Your task to perform on an android device: turn on data saver in the chrome app Image 0: 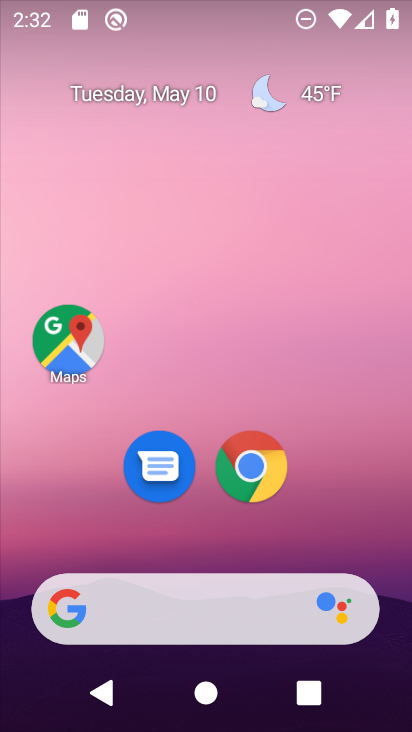
Step 0: click (248, 486)
Your task to perform on an android device: turn on data saver in the chrome app Image 1: 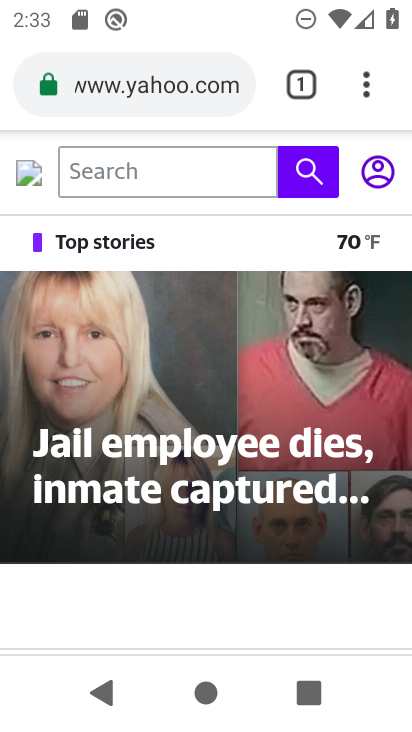
Step 1: click (372, 107)
Your task to perform on an android device: turn on data saver in the chrome app Image 2: 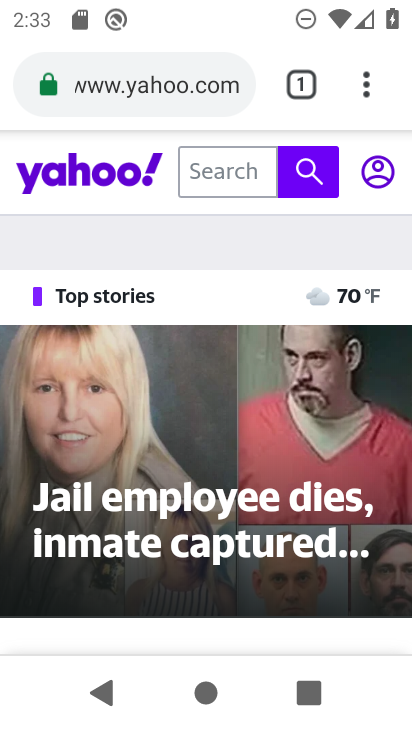
Step 2: click (396, 100)
Your task to perform on an android device: turn on data saver in the chrome app Image 3: 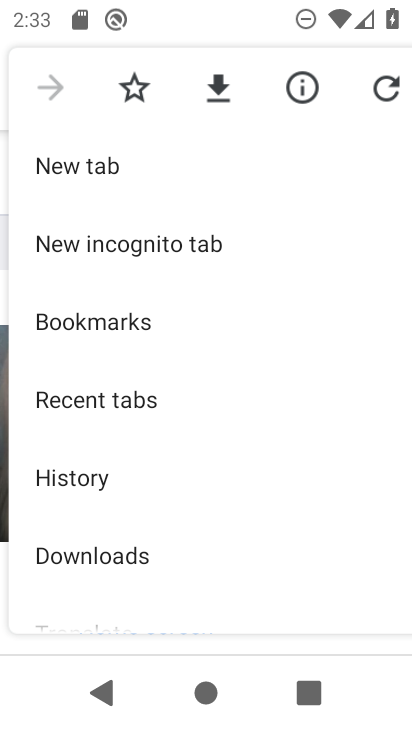
Step 3: drag from (198, 585) to (221, 315)
Your task to perform on an android device: turn on data saver in the chrome app Image 4: 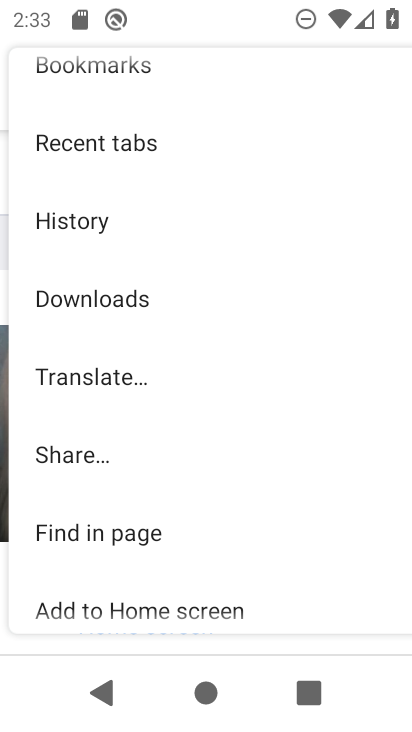
Step 4: drag from (197, 509) to (204, 217)
Your task to perform on an android device: turn on data saver in the chrome app Image 5: 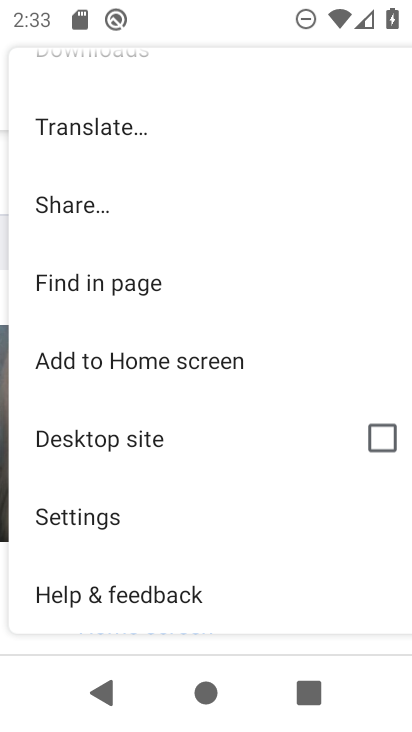
Step 5: click (165, 512)
Your task to perform on an android device: turn on data saver in the chrome app Image 6: 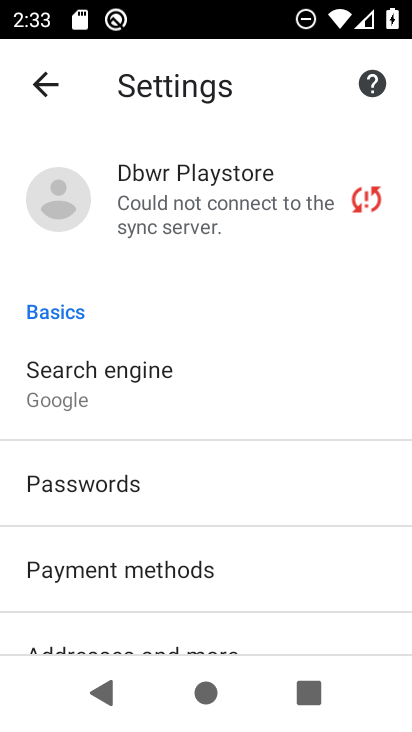
Step 6: drag from (163, 589) to (181, 336)
Your task to perform on an android device: turn on data saver in the chrome app Image 7: 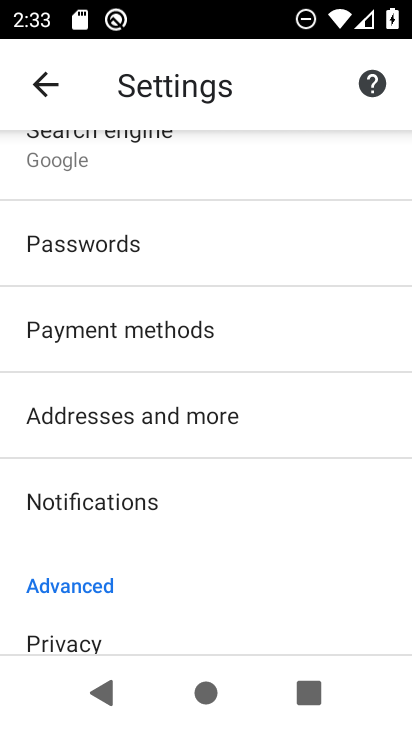
Step 7: drag from (185, 573) to (205, 322)
Your task to perform on an android device: turn on data saver in the chrome app Image 8: 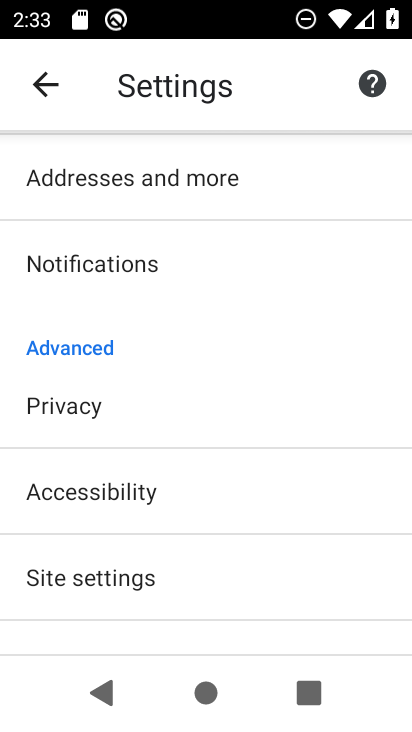
Step 8: drag from (211, 592) to (226, 335)
Your task to perform on an android device: turn on data saver in the chrome app Image 9: 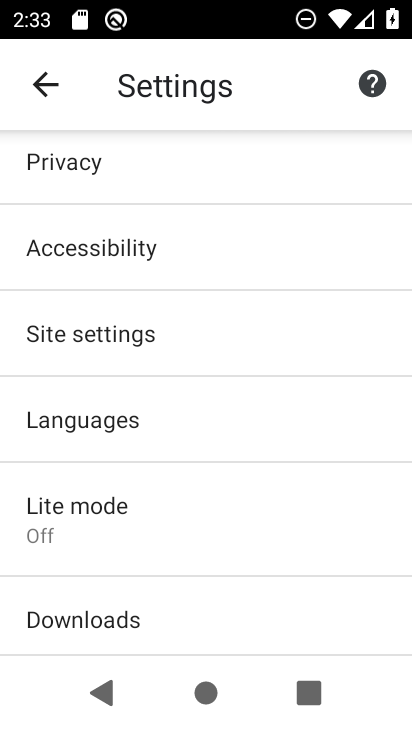
Step 9: click (71, 499)
Your task to perform on an android device: turn on data saver in the chrome app Image 10: 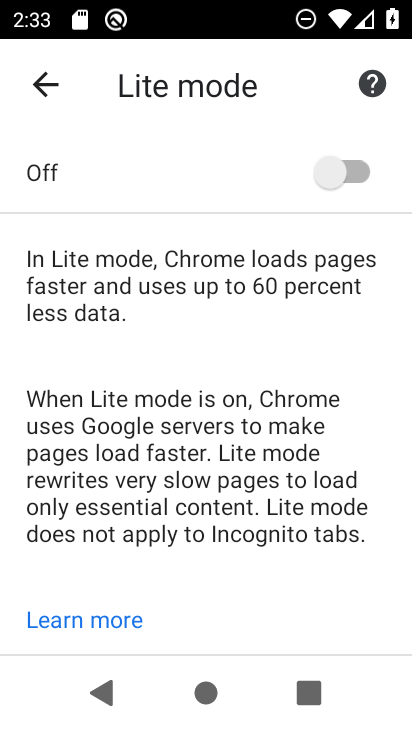
Step 10: click (344, 175)
Your task to perform on an android device: turn on data saver in the chrome app Image 11: 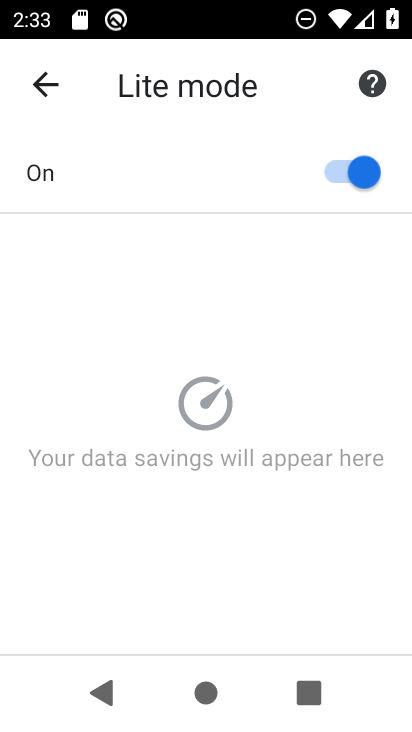
Step 11: task complete